Your task to perform on an android device: Do I have any events this weekend? Image 0: 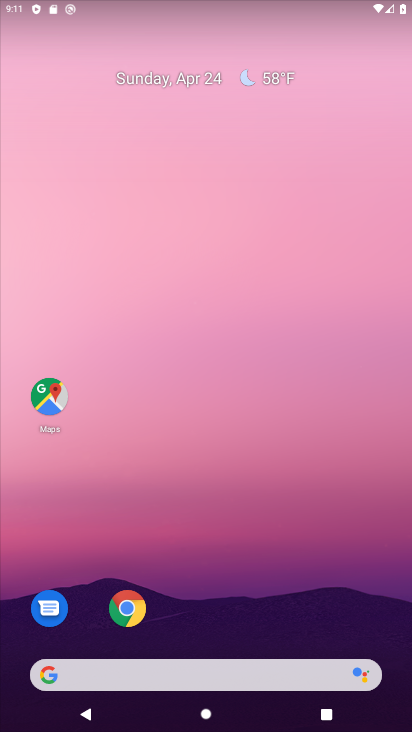
Step 0: drag from (361, 590) to (360, 89)
Your task to perform on an android device: Do I have any events this weekend? Image 1: 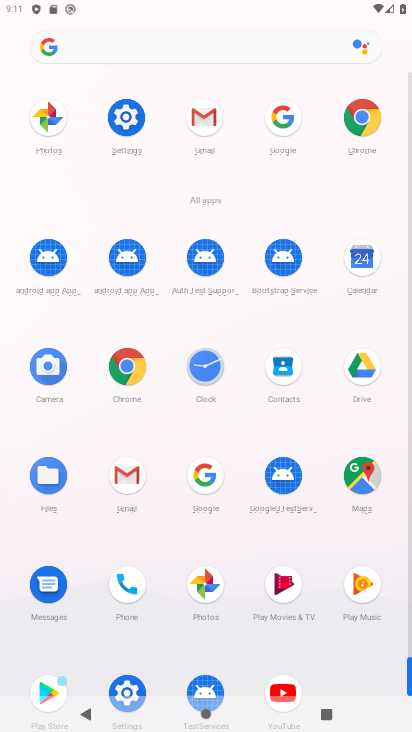
Step 1: click (358, 248)
Your task to perform on an android device: Do I have any events this weekend? Image 2: 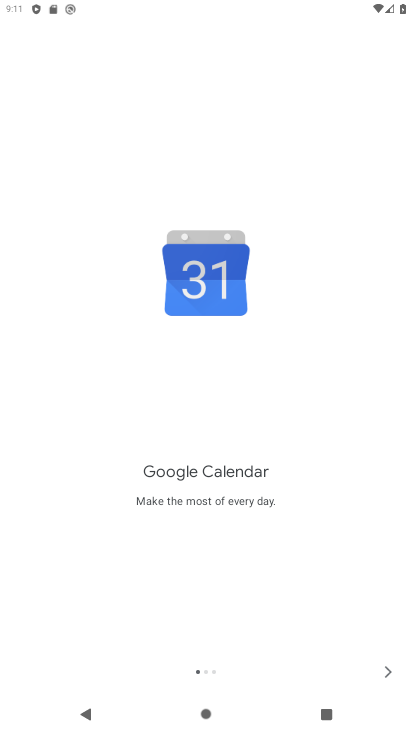
Step 2: click (378, 677)
Your task to perform on an android device: Do I have any events this weekend? Image 3: 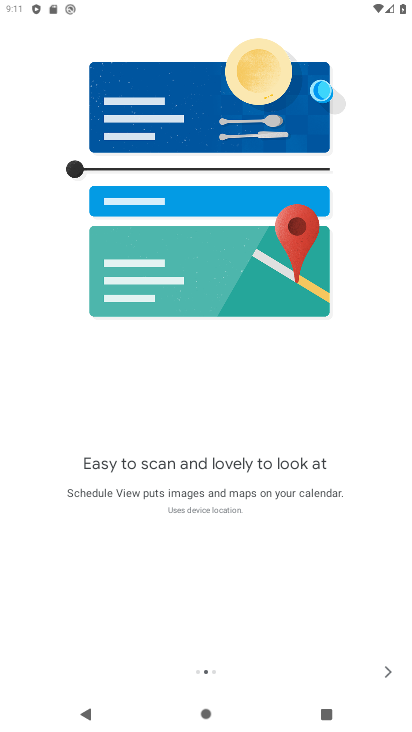
Step 3: click (383, 669)
Your task to perform on an android device: Do I have any events this weekend? Image 4: 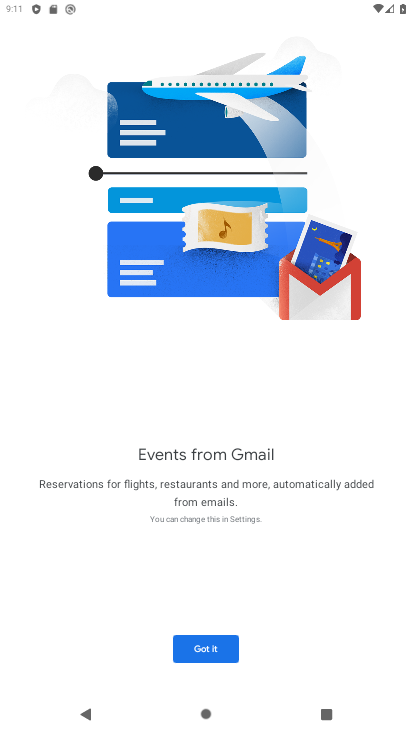
Step 4: click (224, 657)
Your task to perform on an android device: Do I have any events this weekend? Image 5: 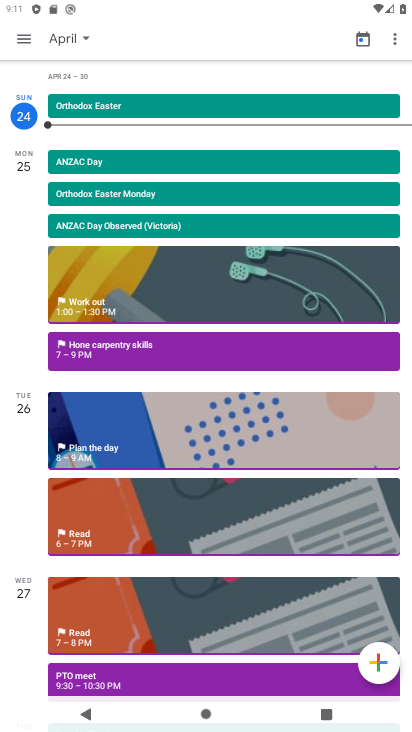
Step 5: drag from (276, 586) to (300, 223)
Your task to perform on an android device: Do I have any events this weekend? Image 6: 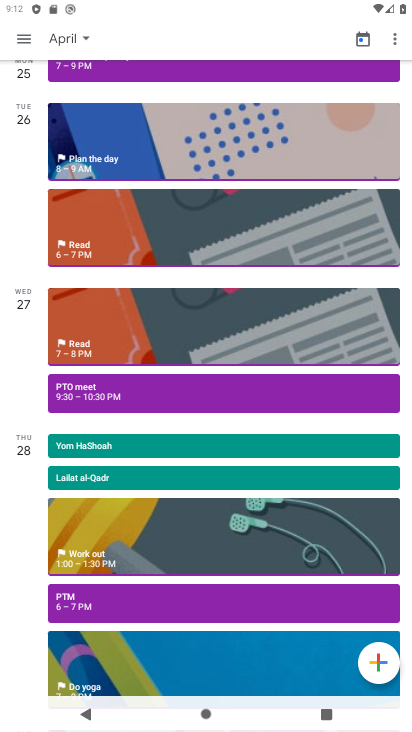
Step 6: drag from (220, 660) to (271, 216)
Your task to perform on an android device: Do I have any events this weekend? Image 7: 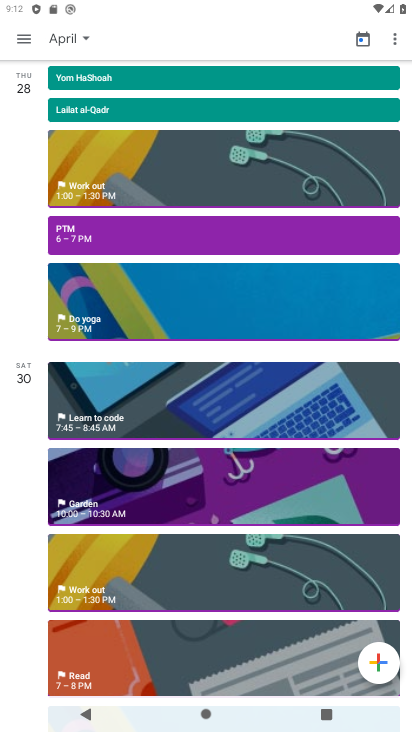
Step 7: click (188, 497)
Your task to perform on an android device: Do I have any events this weekend? Image 8: 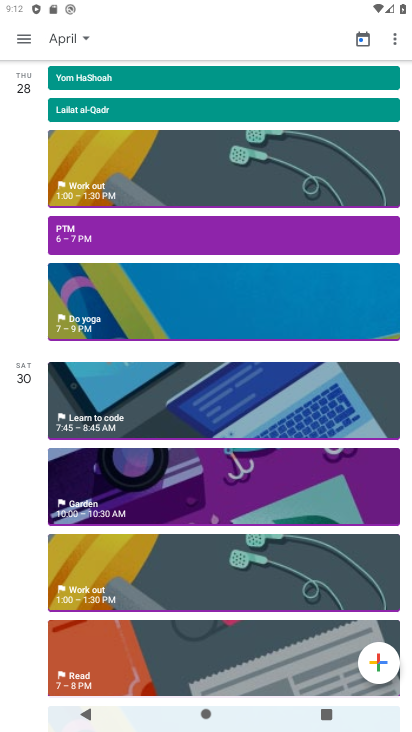
Step 8: click (187, 498)
Your task to perform on an android device: Do I have any events this weekend? Image 9: 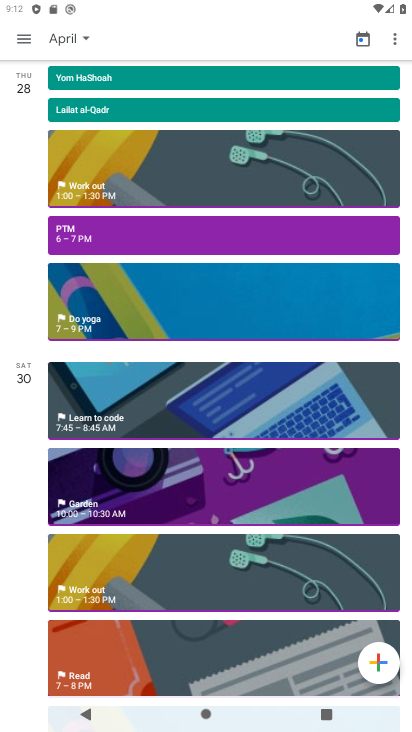
Step 9: drag from (185, 515) to (196, 305)
Your task to perform on an android device: Do I have any events this weekend? Image 10: 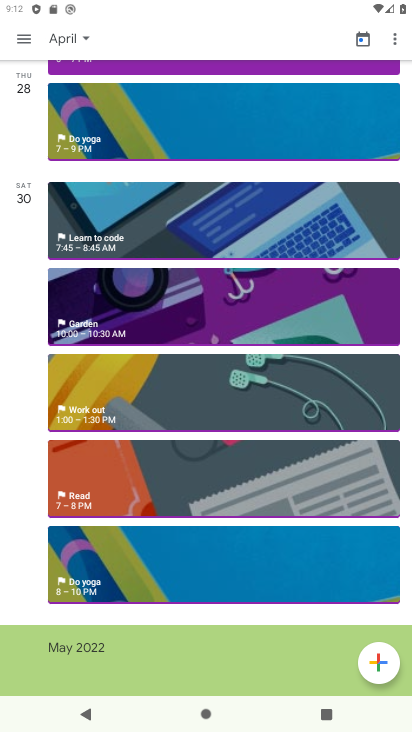
Step 10: click (226, 303)
Your task to perform on an android device: Do I have any events this weekend? Image 11: 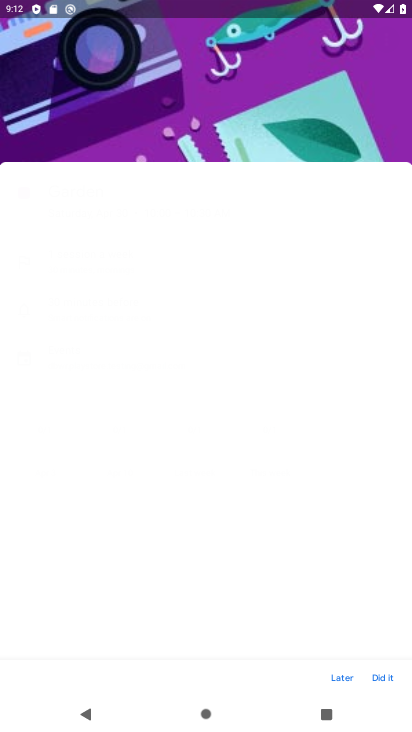
Step 11: click (224, 225)
Your task to perform on an android device: Do I have any events this weekend? Image 12: 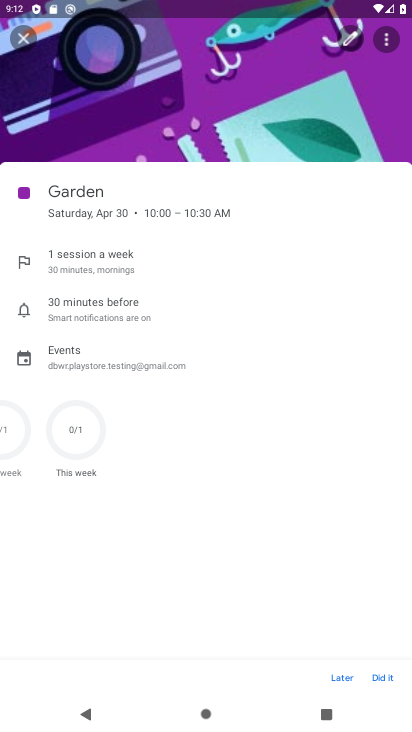
Step 12: task complete